Your task to perform on an android device: change the clock display to show seconds Image 0: 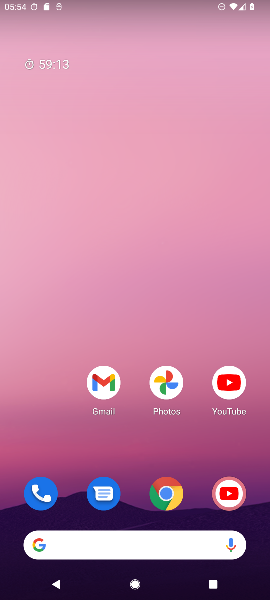
Step 0: press home button
Your task to perform on an android device: change the clock display to show seconds Image 1: 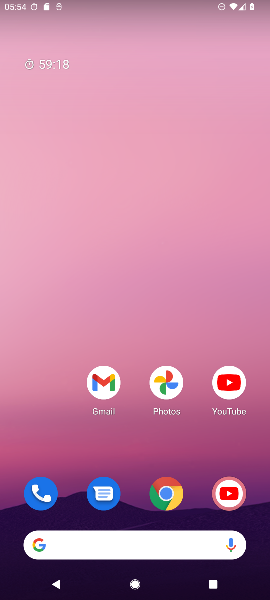
Step 1: drag from (57, 433) to (46, 80)
Your task to perform on an android device: change the clock display to show seconds Image 2: 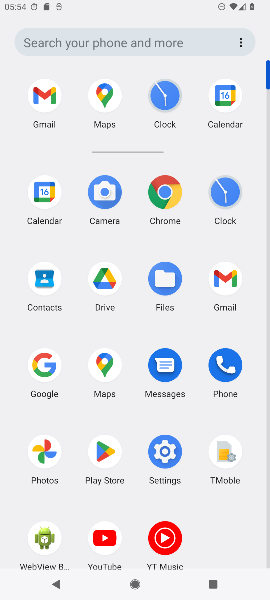
Step 2: click (226, 194)
Your task to perform on an android device: change the clock display to show seconds Image 3: 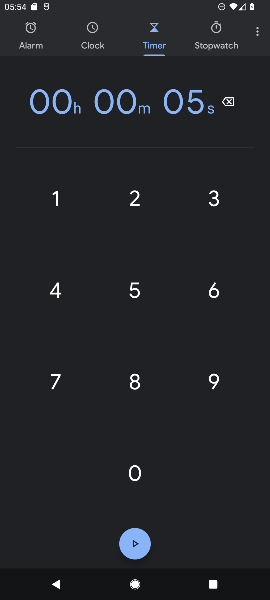
Step 3: click (257, 30)
Your task to perform on an android device: change the clock display to show seconds Image 4: 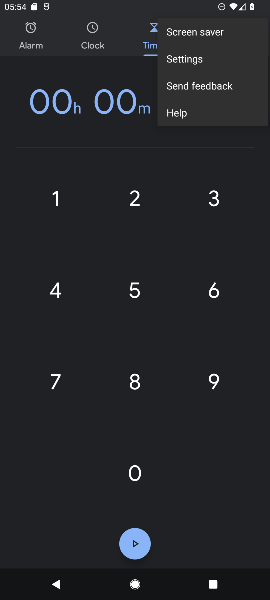
Step 4: click (207, 64)
Your task to perform on an android device: change the clock display to show seconds Image 5: 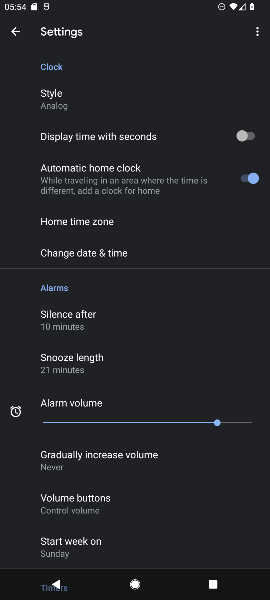
Step 5: drag from (206, 310) to (215, 237)
Your task to perform on an android device: change the clock display to show seconds Image 6: 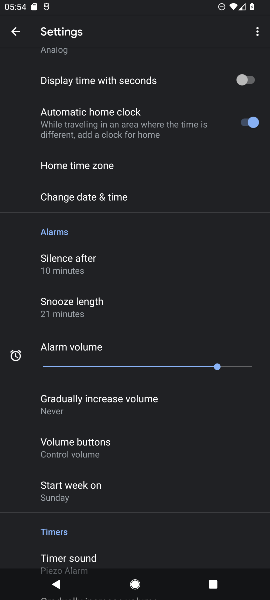
Step 6: drag from (195, 395) to (199, 304)
Your task to perform on an android device: change the clock display to show seconds Image 7: 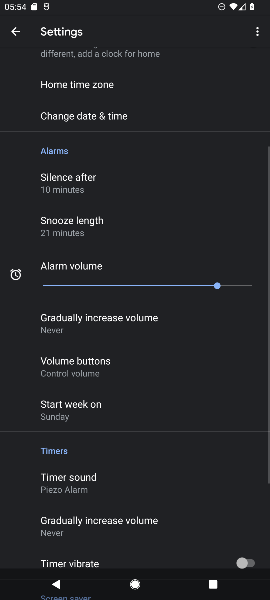
Step 7: drag from (194, 420) to (194, 342)
Your task to perform on an android device: change the clock display to show seconds Image 8: 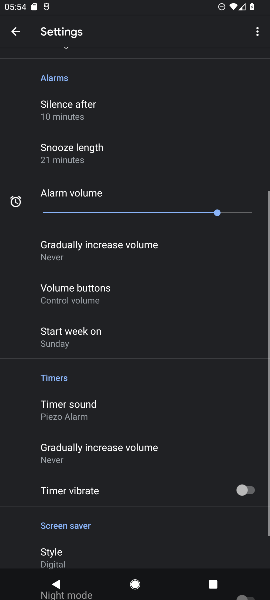
Step 8: drag from (173, 469) to (185, 384)
Your task to perform on an android device: change the clock display to show seconds Image 9: 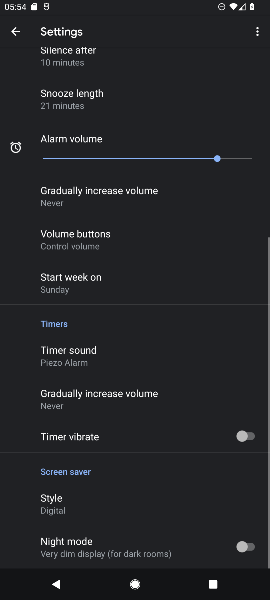
Step 9: drag from (185, 512) to (197, 347)
Your task to perform on an android device: change the clock display to show seconds Image 10: 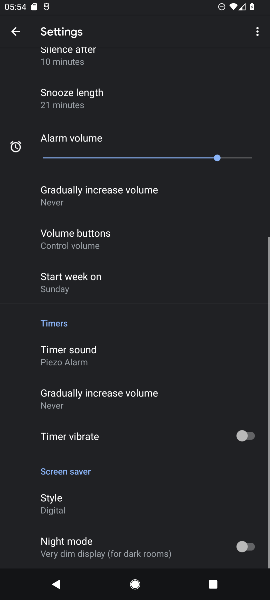
Step 10: drag from (209, 269) to (209, 354)
Your task to perform on an android device: change the clock display to show seconds Image 11: 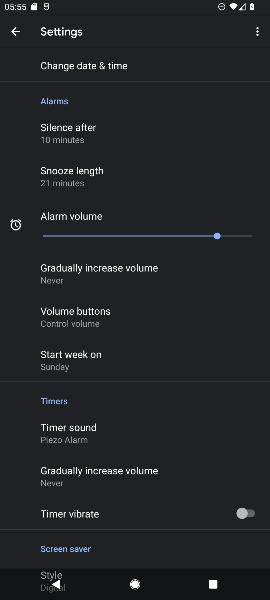
Step 11: drag from (212, 274) to (213, 342)
Your task to perform on an android device: change the clock display to show seconds Image 12: 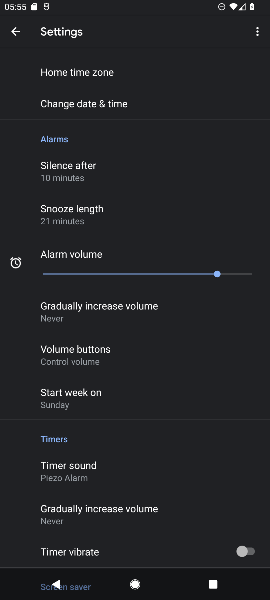
Step 12: drag from (215, 190) to (205, 295)
Your task to perform on an android device: change the clock display to show seconds Image 13: 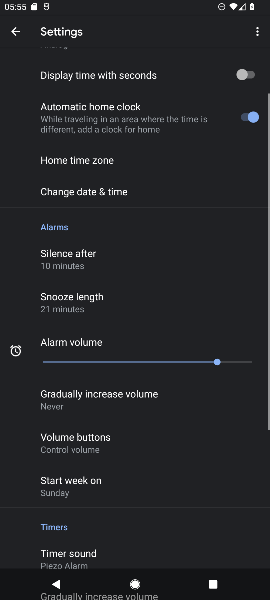
Step 13: drag from (192, 167) to (194, 262)
Your task to perform on an android device: change the clock display to show seconds Image 14: 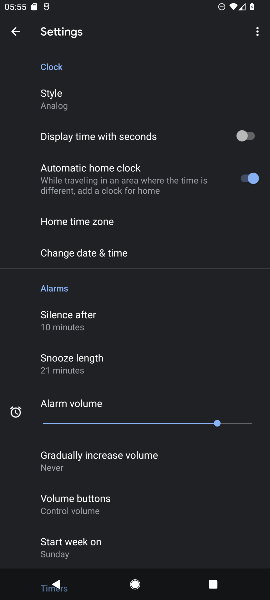
Step 14: click (240, 141)
Your task to perform on an android device: change the clock display to show seconds Image 15: 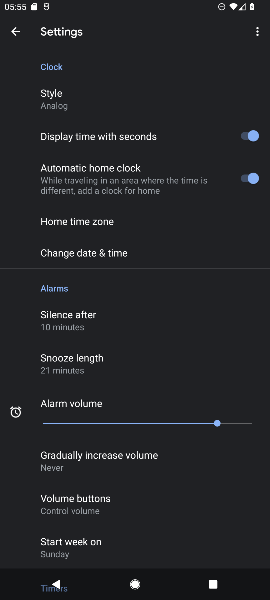
Step 15: task complete